Your task to perform on an android device: toggle wifi Image 0: 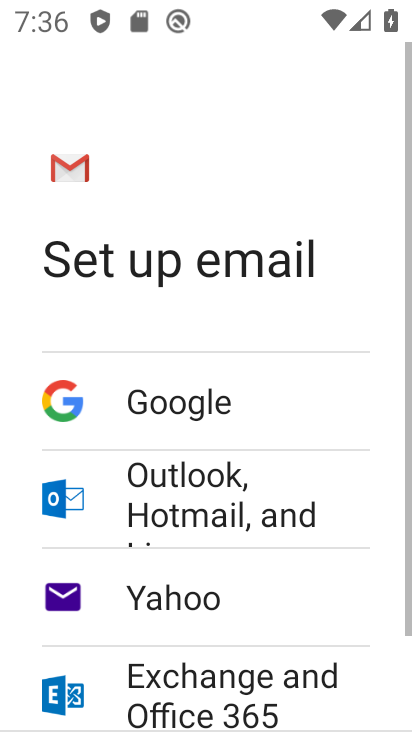
Step 0: press home button
Your task to perform on an android device: toggle wifi Image 1: 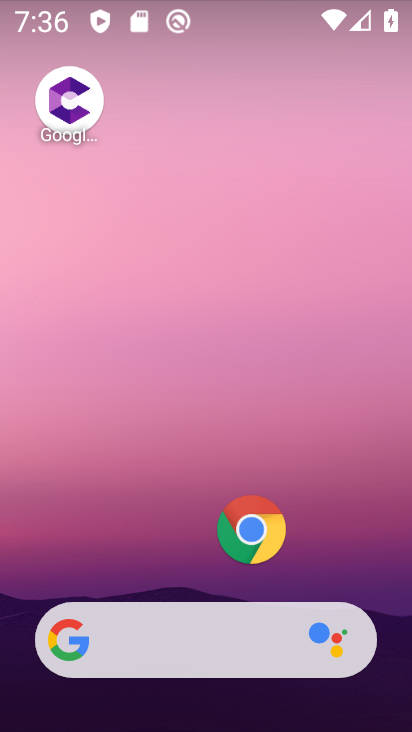
Step 1: drag from (197, 503) to (207, 209)
Your task to perform on an android device: toggle wifi Image 2: 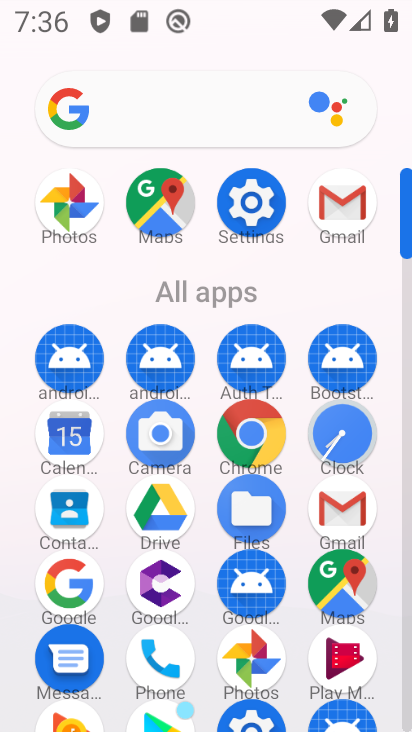
Step 2: drag from (195, 603) to (214, 62)
Your task to perform on an android device: toggle wifi Image 3: 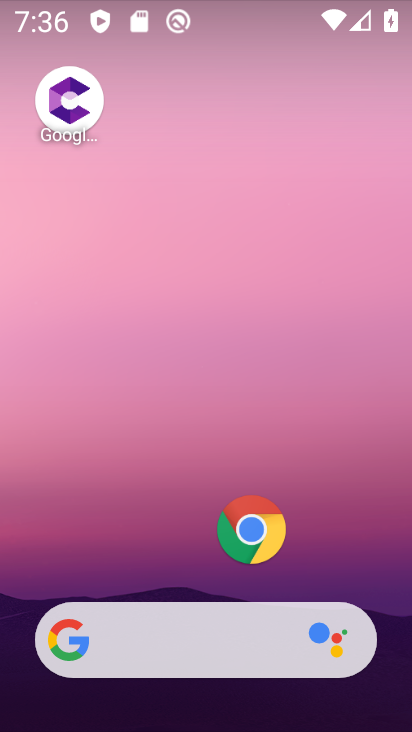
Step 3: drag from (229, 349) to (268, 11)
Your task to perform on an android device: toggle wifi Image 4: 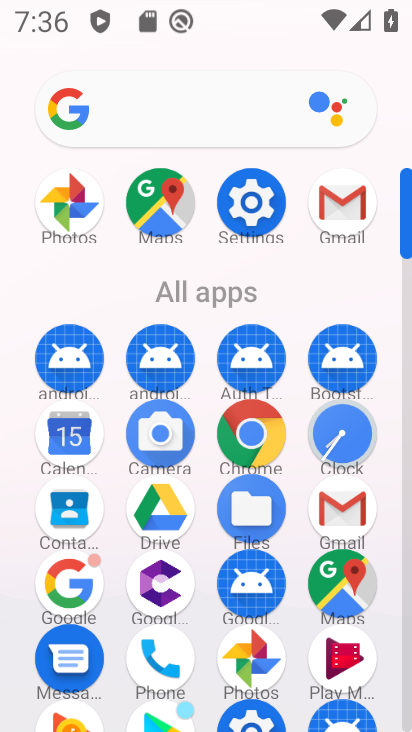
Step 4: drag from (186, 593) to (294, 5)
Your task to perform on an android device: toggle wifi Image 5: 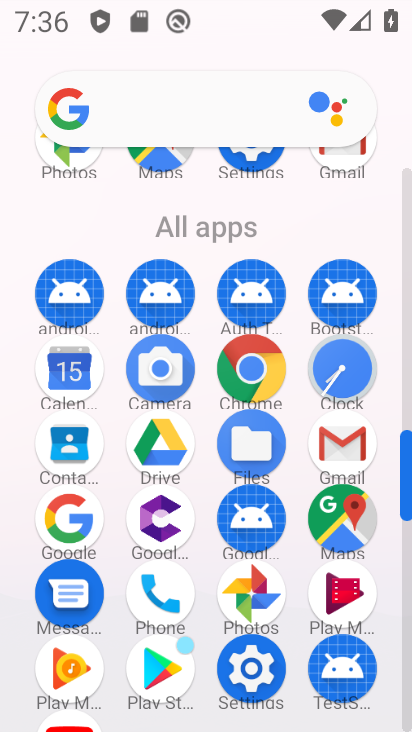
Step 5: click (247, 190)
Your task to perform on an android device: toggle wifi Image 6: 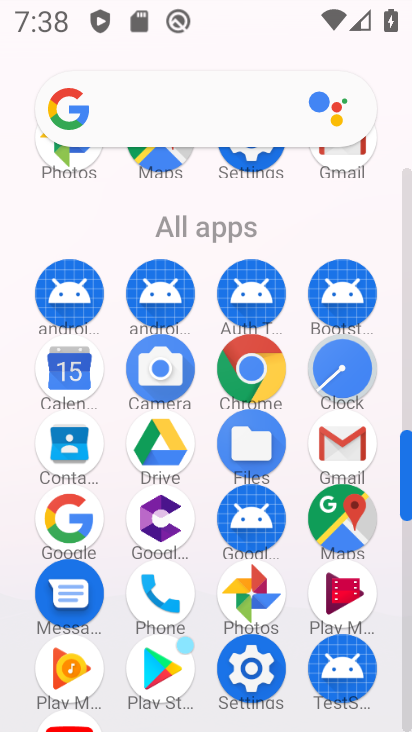
Step 6: click (253, 665)
Your task to perform on an android device: toggle wifi Image 7: 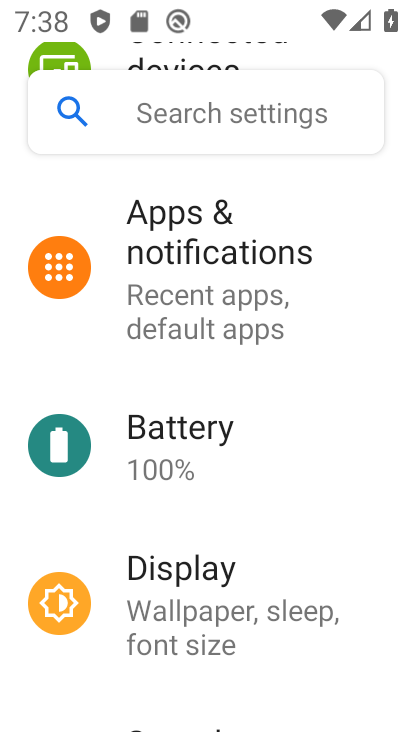
Step 7: drag from (235, 164) to (267, 623)
Your task to perform on an android device: toggle wifi Image 8: 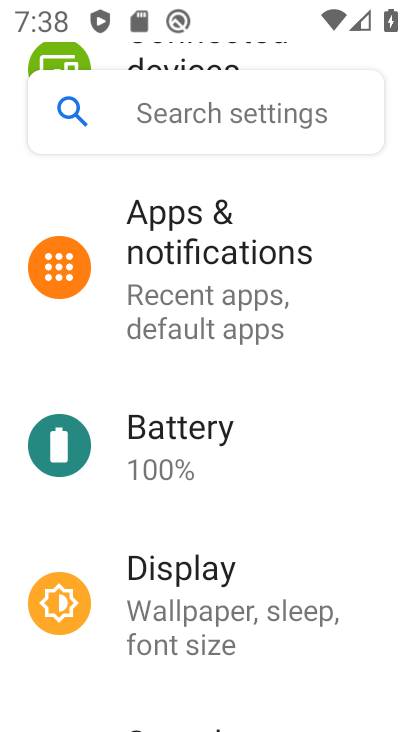
Step 8: click (244, 640)
Your task to perform on an android device: toggle wifi Image 9: 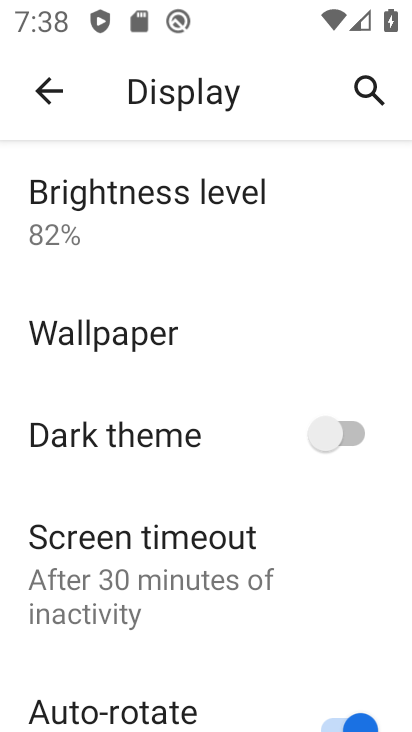
Step 9: click (46, 89)
Your task to perform on an android device: toggle wifi Image 10: 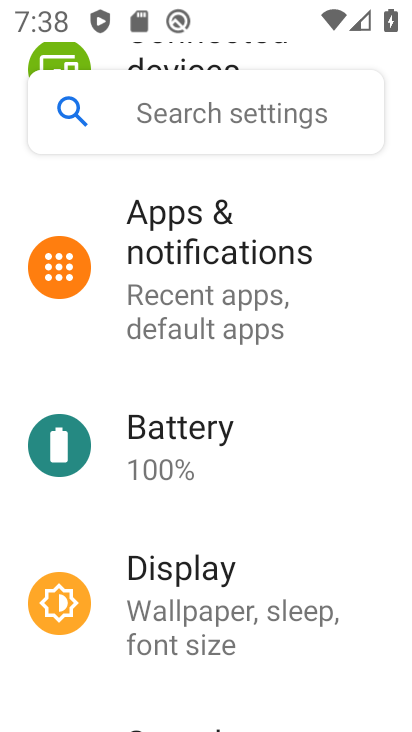
Step 10: drag from (231, 177) to (257, 728)
Your task to perform on an android device: toggle wifi Image 11: 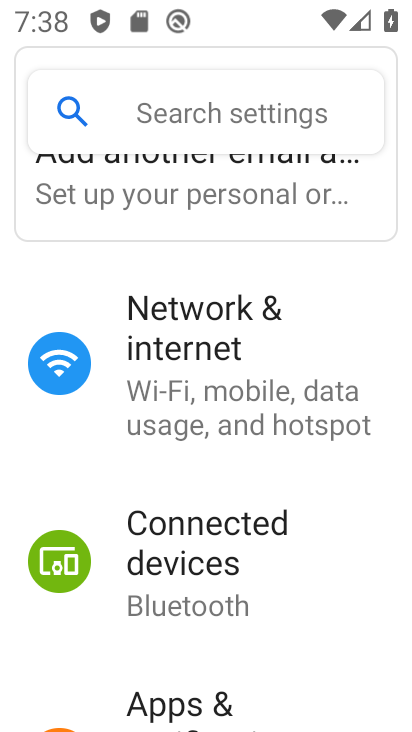
Step 11: click (244, 353)
Your task to perform on an android device: toggle wifi Image 12: 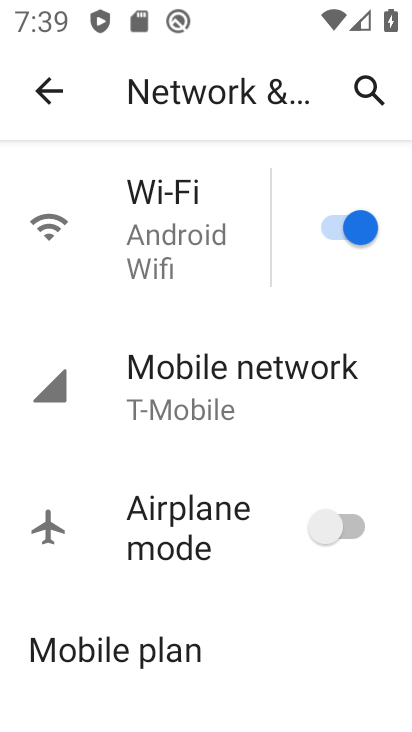
Step 12: click (330, 225)
Your task to perform on an android device: toggle wifi Image 13: 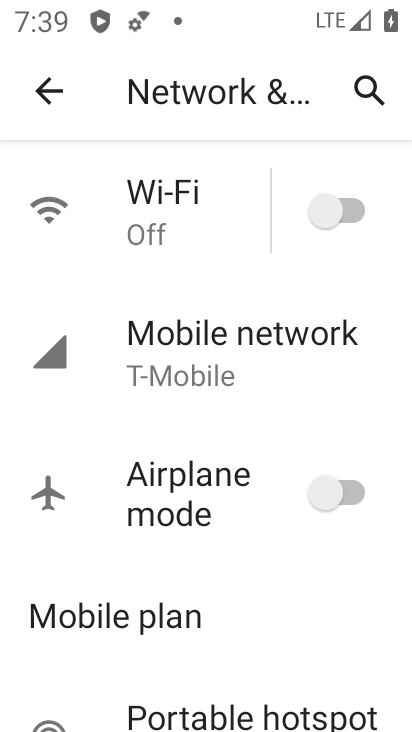
Step 13: task complete